Your task to perform on an android device: Is it going to rain this weekend? Image 0: 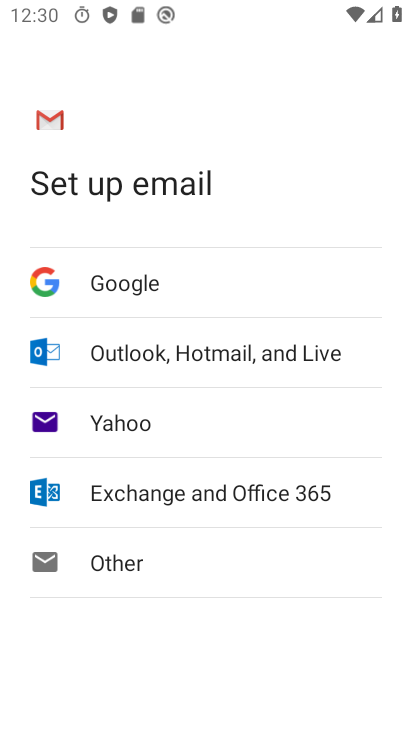
Step 0: press home button
Your task to perform on an android device: Is it going to rain this weekend? Image 1: 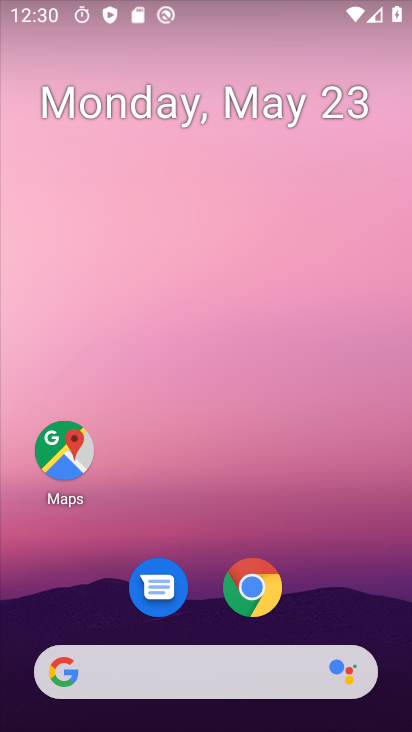
Step 1: drag from (236, 520) to (295, 8)
Your task to perform on an android device: Is it going to rain this weekend? Image 2: 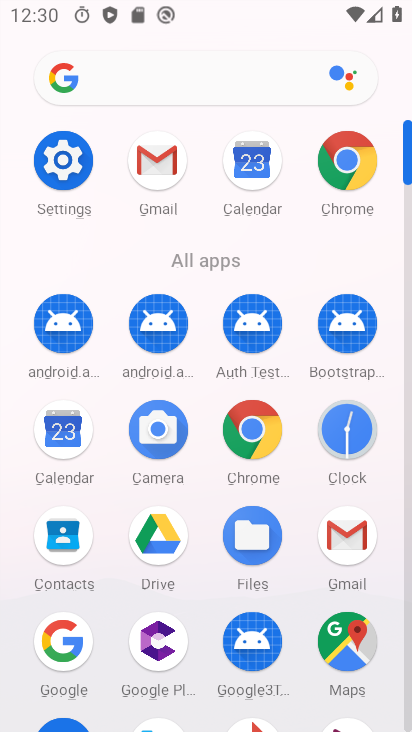
Step 2: click (126, 79)
Your task to perform on an android device: Is it going to rain this weekend? Image 3: 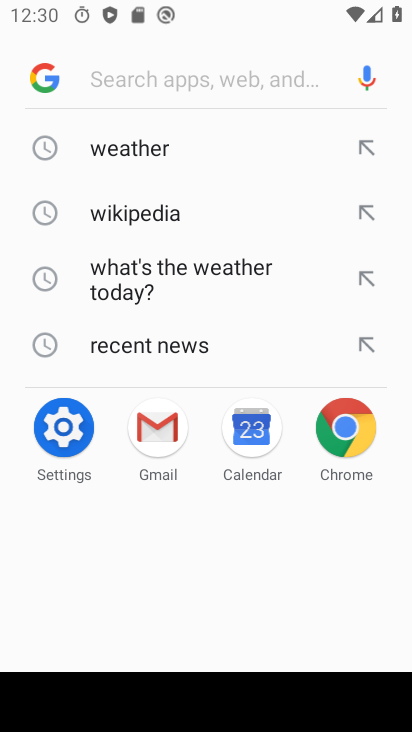
Step 3: click (138, 141)
Your task to perform on an android device: Is it going to rain this weekend? Image 4: 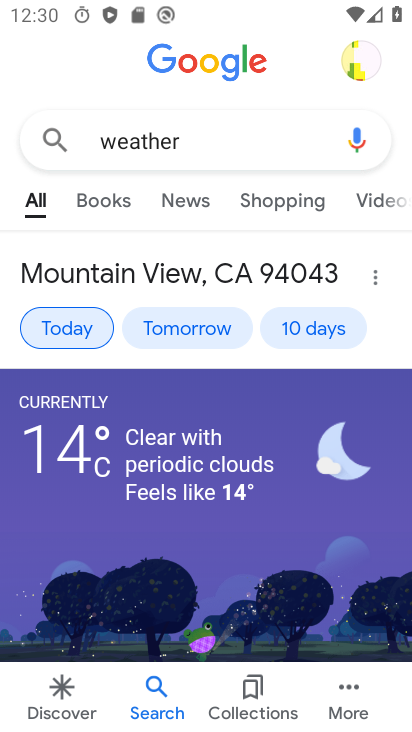
Step 4: click (330, 327)
Your task to perform on an android device: Is it going to rain this weekend? Image 5: 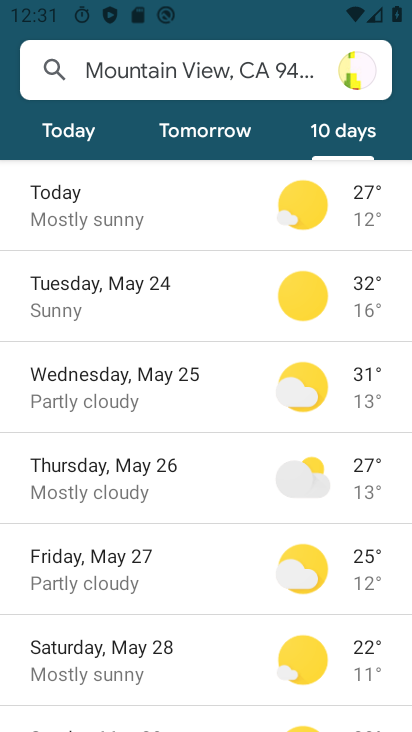
Step 5: task complete